Your task to perform on an android device: Open battery settings Image 0: 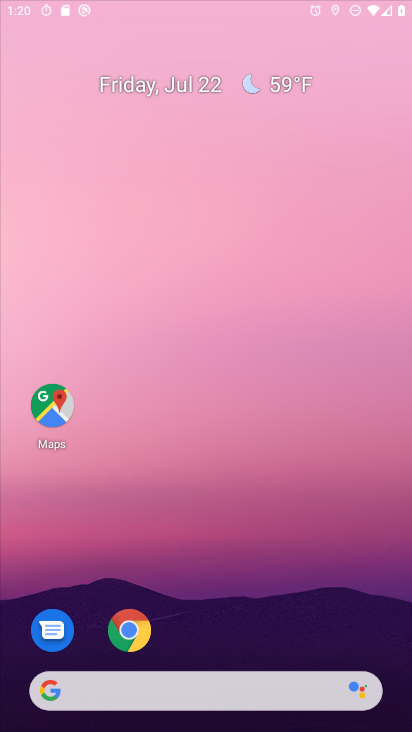
Step 0: press home button
Your task to perform on an android device: Open battery settings Image 1: 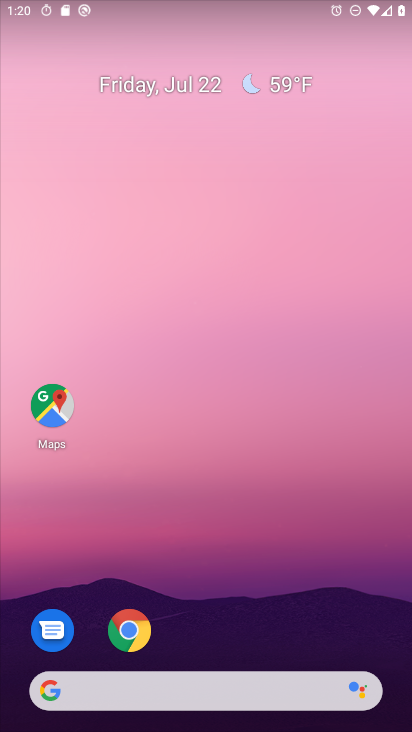
Step 1: drag from (230, 647) to (219, 1)
Your task to perform on an android device: Open battery settings Image 2: 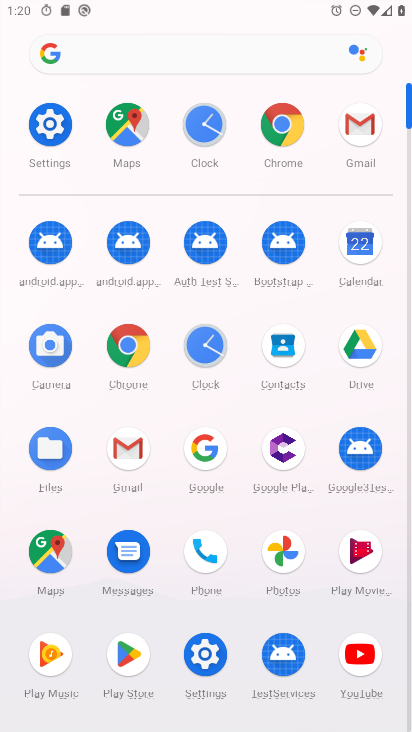
Step 2: click (49, 124)
Your task to perform on an android device: Open battery settings Image 3: 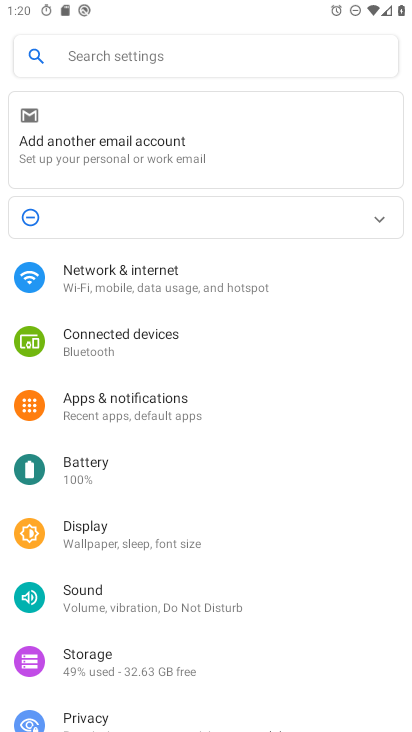
Step 3: click (85, 468)
Your task to perform on an android device: Open battery settings Image 4: 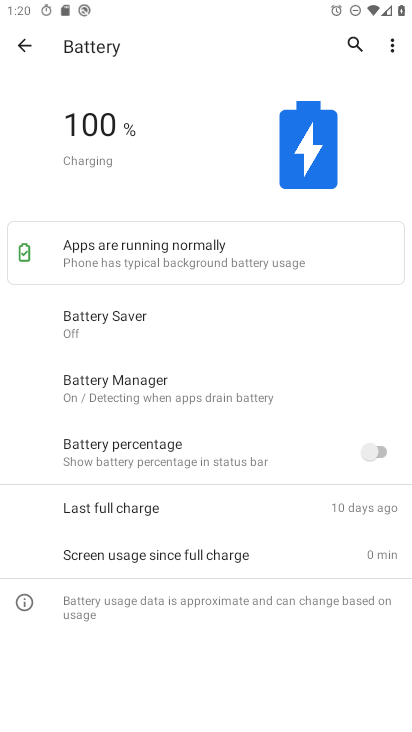
Step 4: task complete